Your task to perform on an android device: Search for hotels in Los Angeles Image 0: 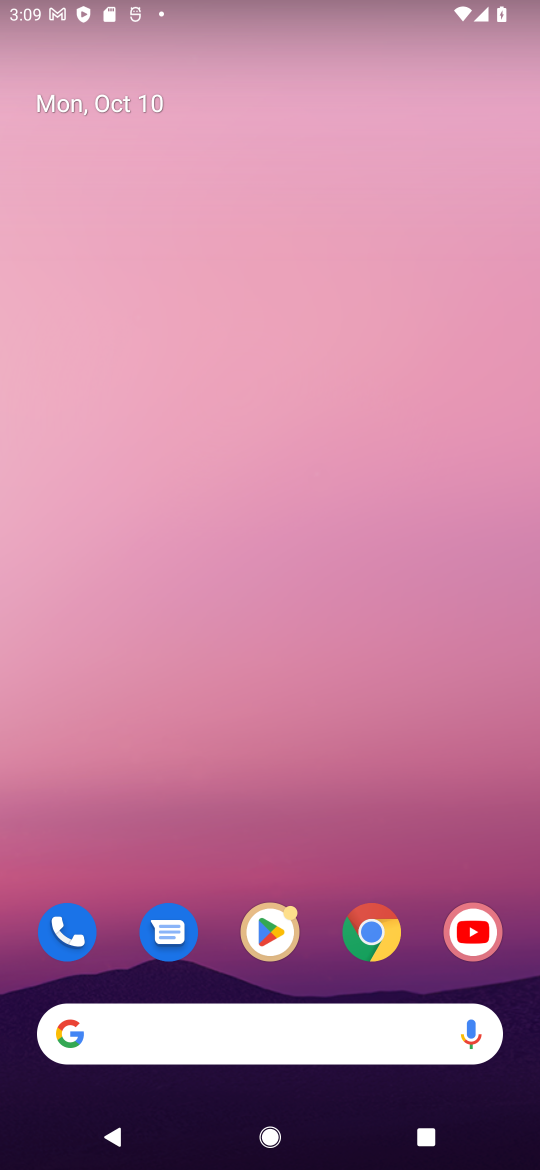
Step 0: press home button
Your task to perform on an android device: Search for hotels in Los Angeles Image 1: 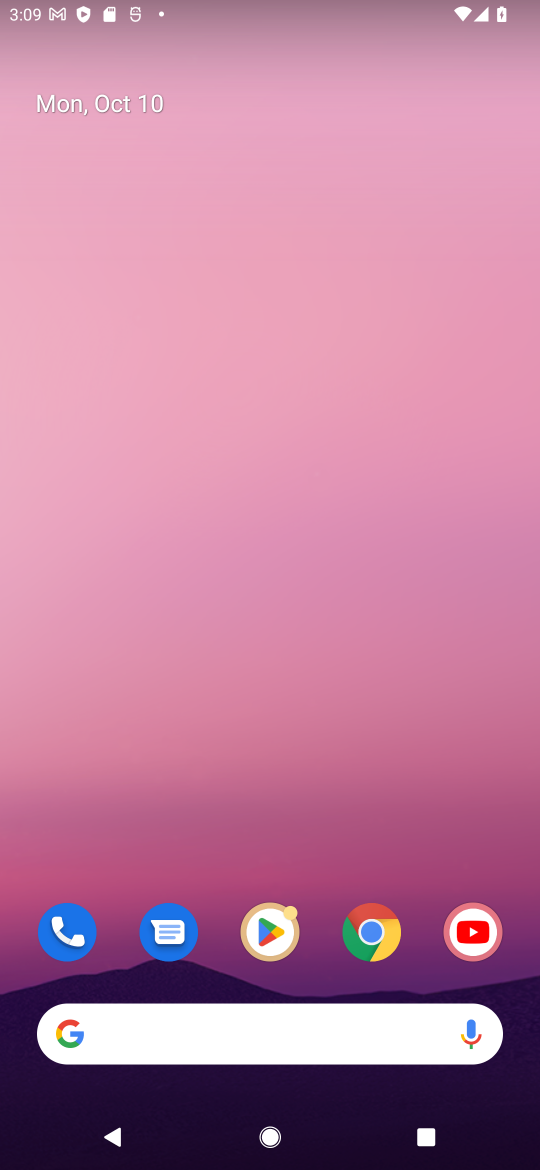
Step 1: click (376, 1041)
Your task to perform on an android device: Search for hotels in Los Angeles Image 2: 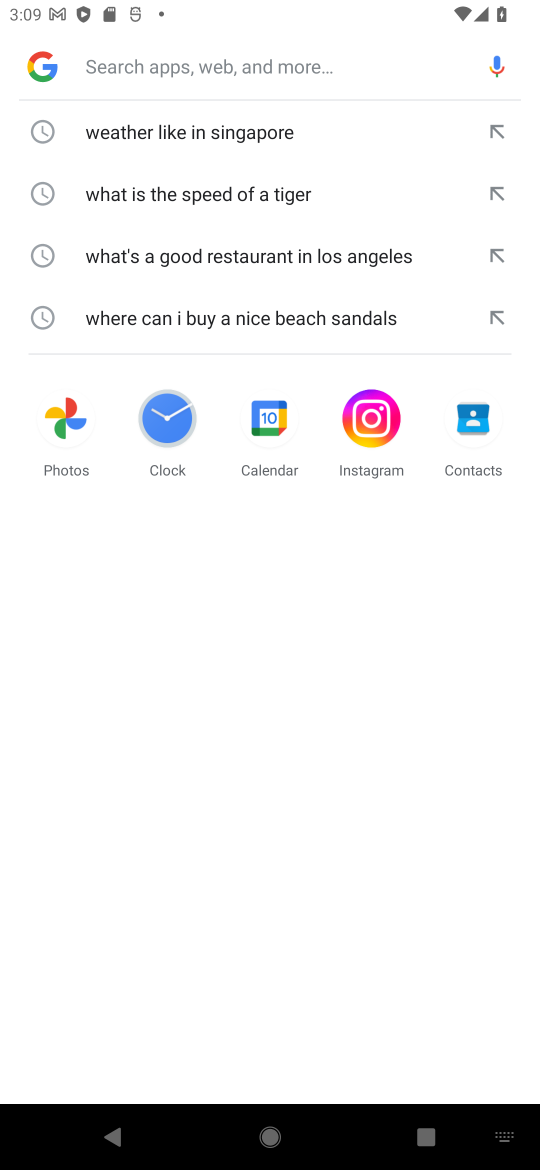
Step 2: type "hotels in los angeles"
Your task to perform on an android device: Search for hotels in Los Angeles Image 3: 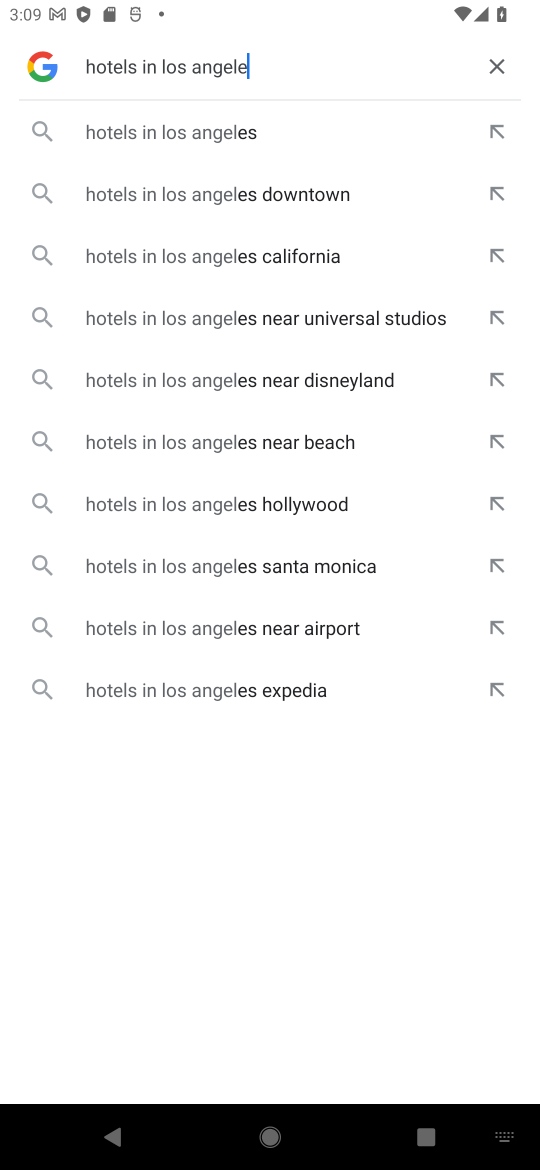
Step 3: press enter
Your task to perform on an android device: Search for hotels in Los Angeles Image 4: 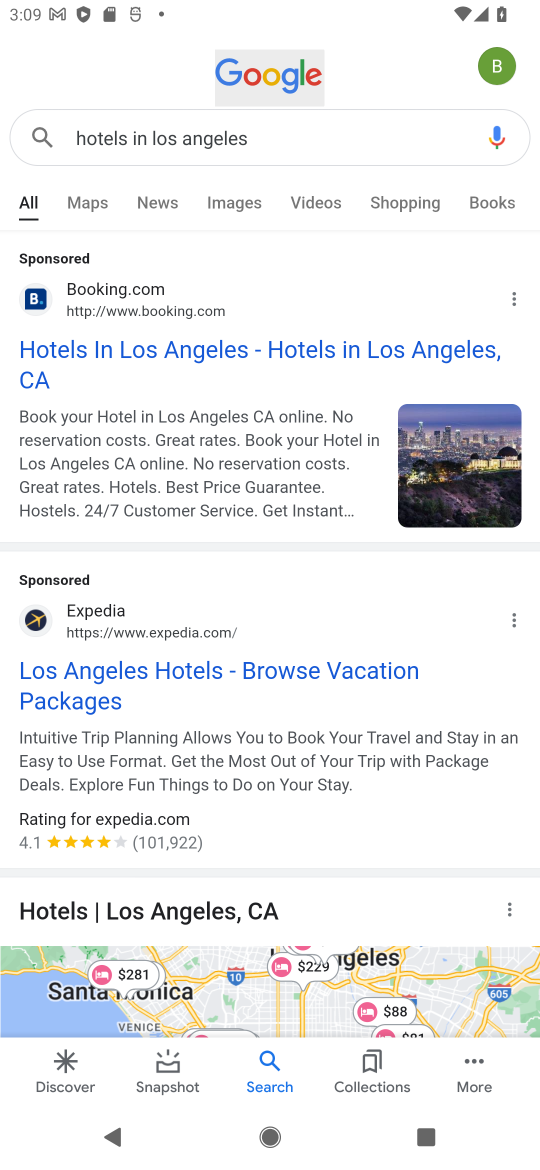
Step 4: task complete